Your task to perform on an android device: open chrome and create a bookmark for the current page Image 0: 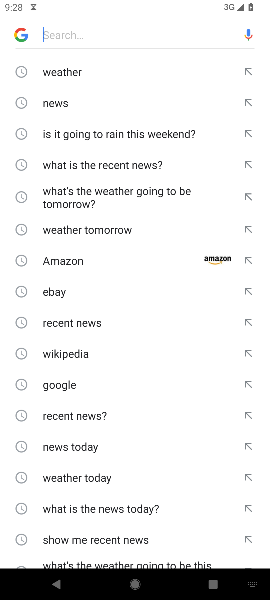
Step 0: press home button
Your task to perform on an android device: open chrome and create a bookmark for the current page Image 1: 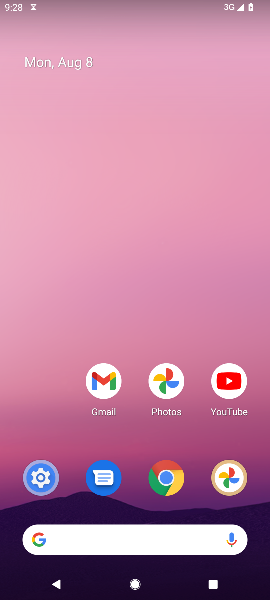
Step 1: click (162, 472)
Your task to perform on an android device: open chrome and create a bookmark for the current page Image 2: 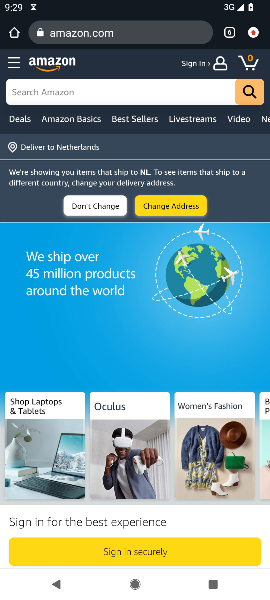
Step 2: click (252, 36)
Your task to perform on an android device: open chrome and create a bookmark for the current page Image 3: 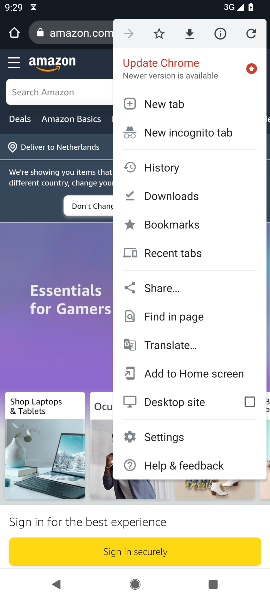
Step 3: click (156, 31)
Your task to perform on an android device: open chrome and create a bookmark for the current page Image 4: 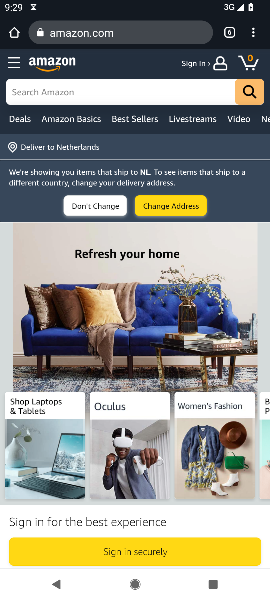
Step 4: task complete